Your task to perform on an android device: empty trash in the gmail app Image 0: 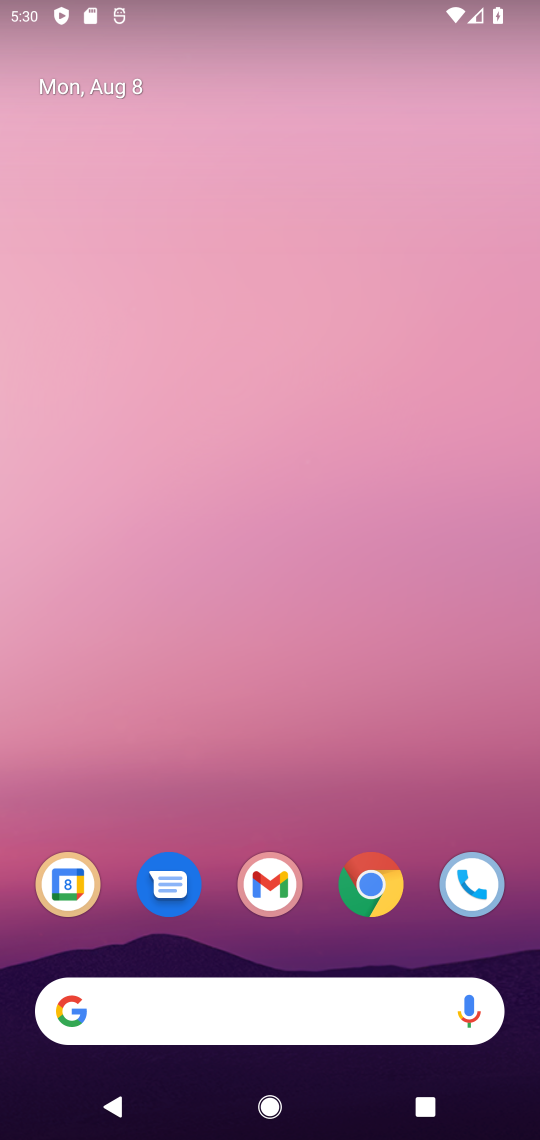
Step 0: click (259, 878)
Your task to perform on an android device: empty trash in the gmail app Image 1: 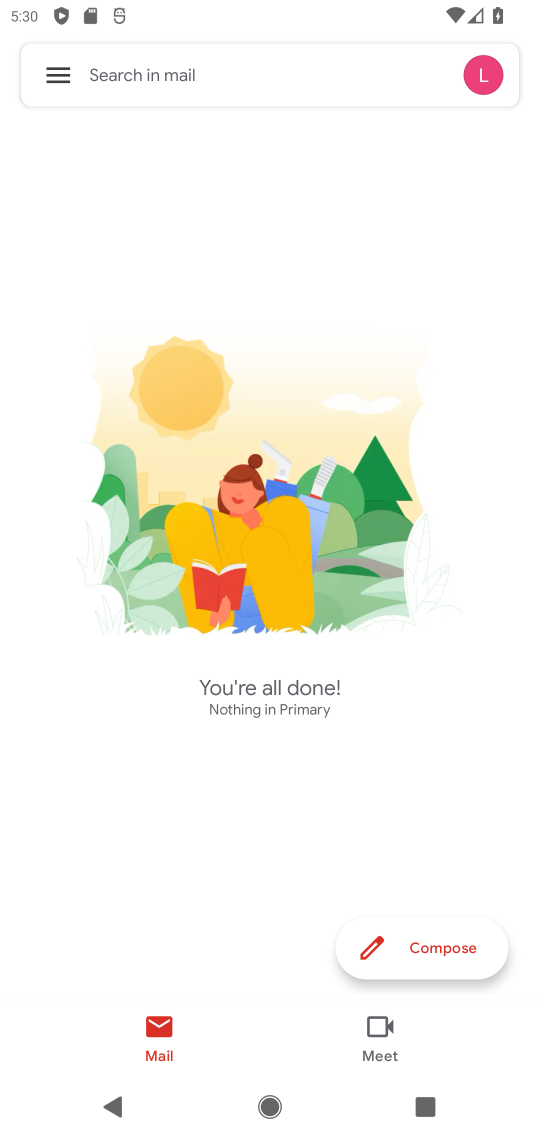
Step 1: click (68, 82)
Your task to perform on an android device: empty trash in the gmail app Image 2: 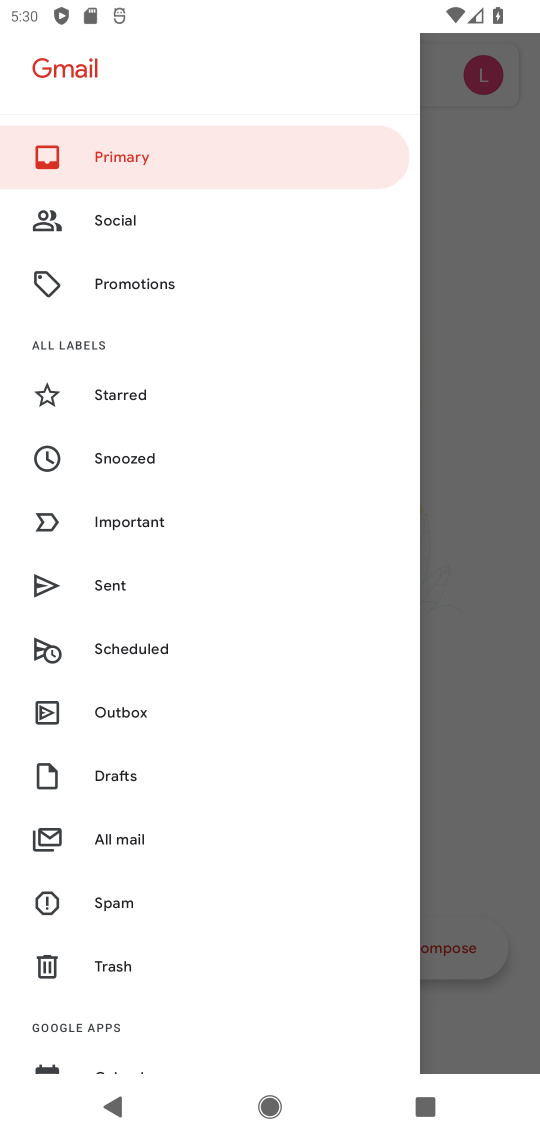
Step 2: click (170, 964)
Your task to perform on an android device: empty trash in the gmail app Image 3: 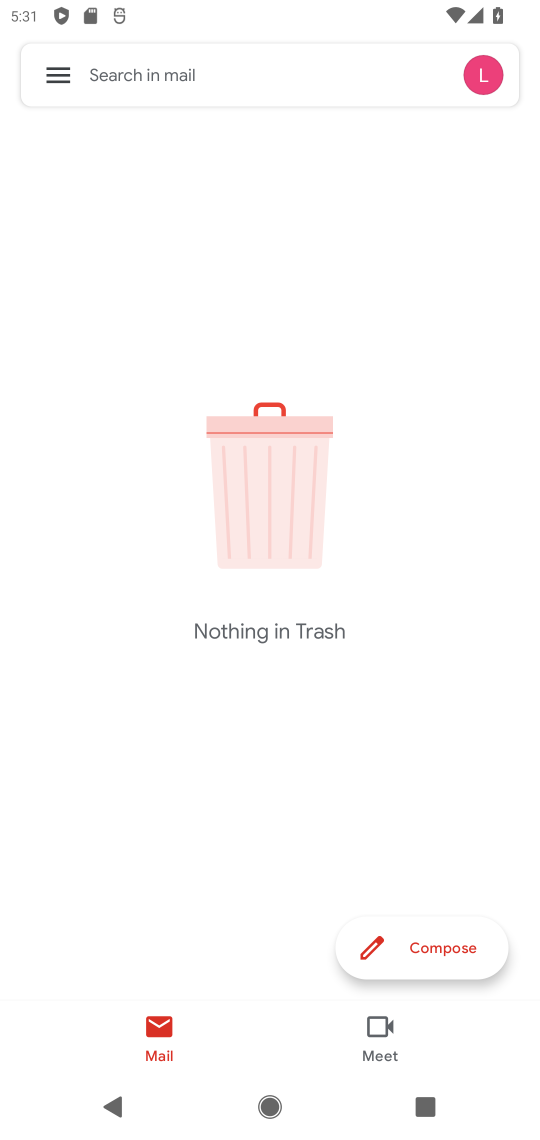
Step 3: task complete